Your task to perform on an android device: see creations saved in the google photos Image 0: 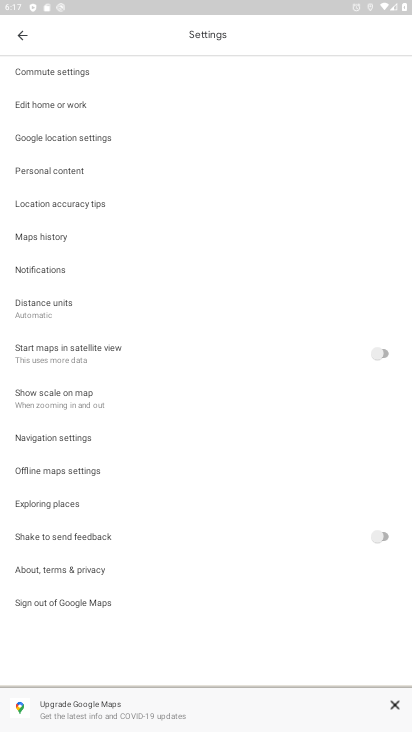
Step 0: press home button
Your task to perform on an android device: see creations saved in the google photos Image 1: 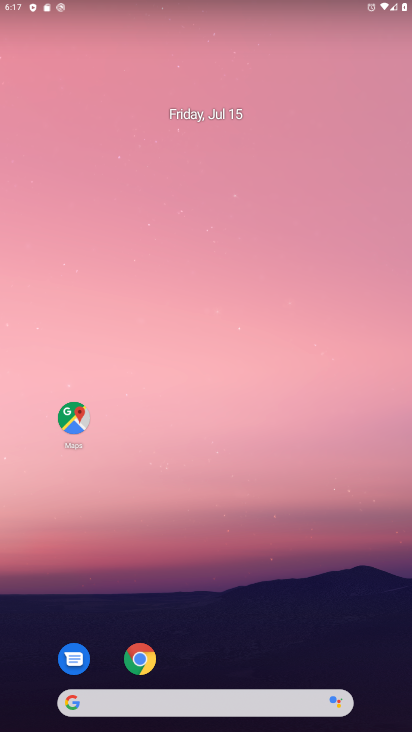
Step 1: drag from (357, 661) to (329, 170)
Your task to perform on an android device: see creations saved in the google photos Image 2: 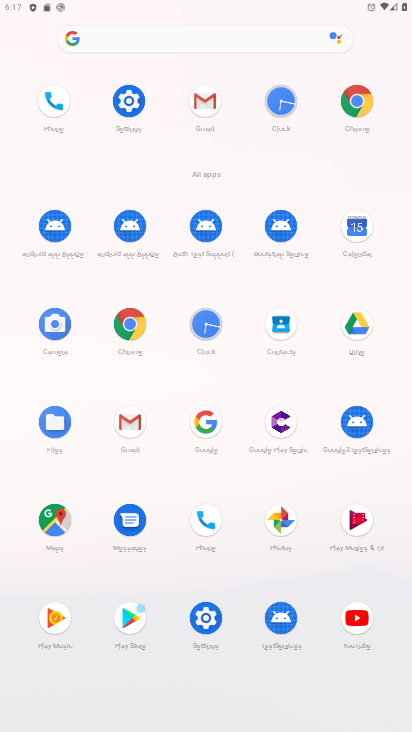
Step 2: click (276, 518)
Your task to perform on an android device: see creations saved in the google photos Image 3: 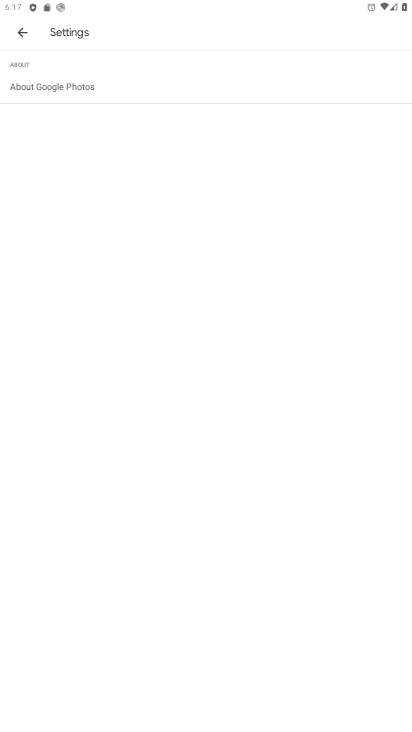
Step 3: press back button
Your task to perform on an android device: see creations saved in the google photos Image 4: 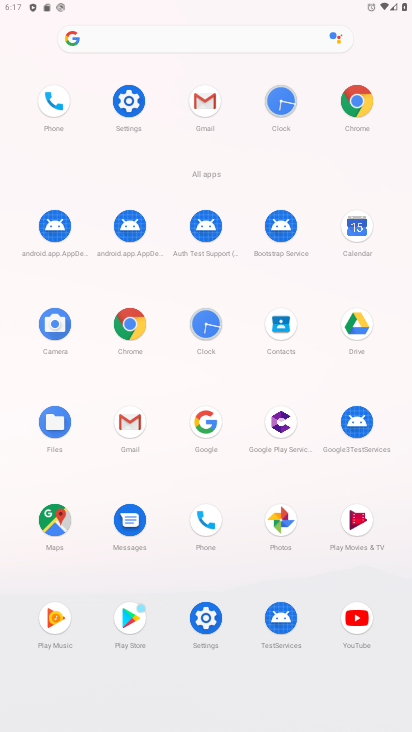
Step 4: click (280, 518)
Your task to perform on an android device: see creations saved in the google photos Image 5: 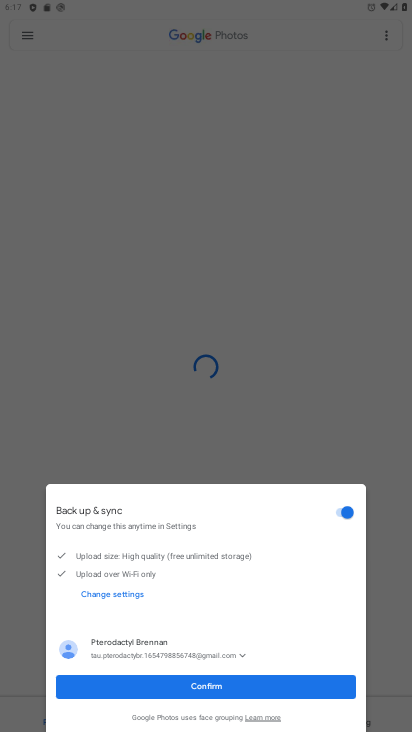
Step 5: click (199, 685)
Your task to perform on an android device: see creations saved in the google photos Image 6: 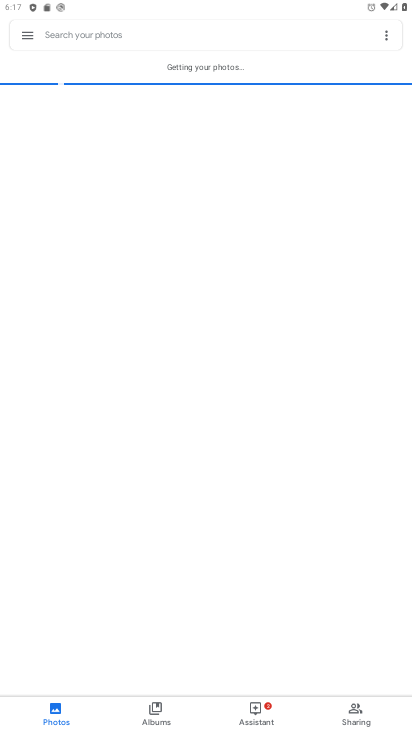
Step 6: click (28, 31)
Your task to perform on an android device: see creations saved in the google photos Image 7: 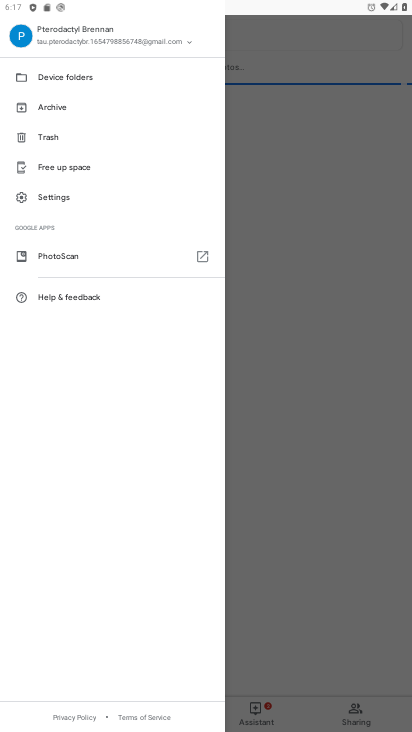
Step 7: click (304, 368)
Your task to perform on an android device: see creations saved in the google photos Image 8: 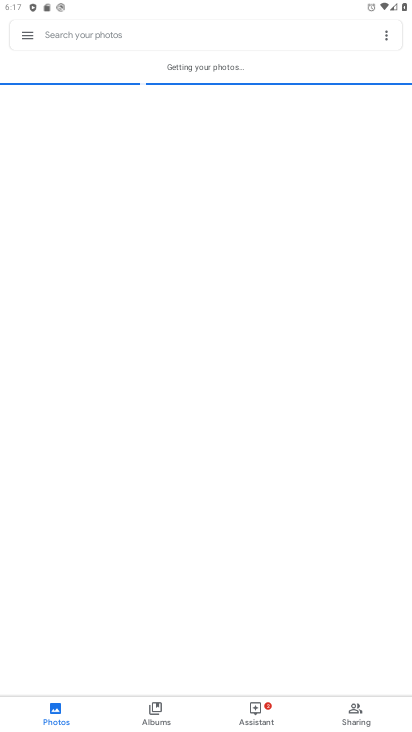
Step 8: click (159, 719)
Your task to perform on an android device: see creations saved in the google photos Image 9: 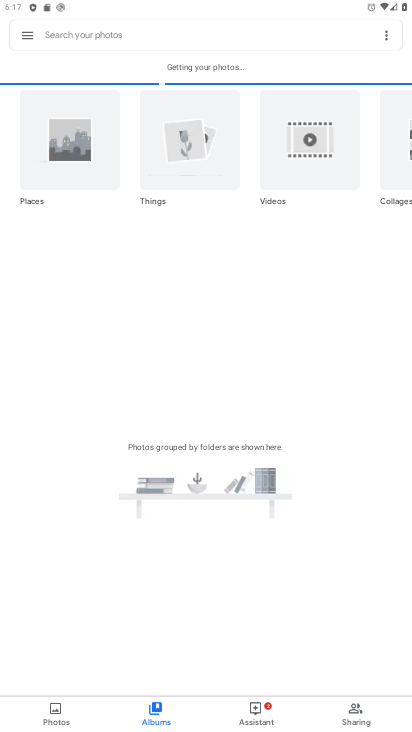
Step 9: task complete